Your task to perform on an android device: delete browsing data in the chrome app Image 0: 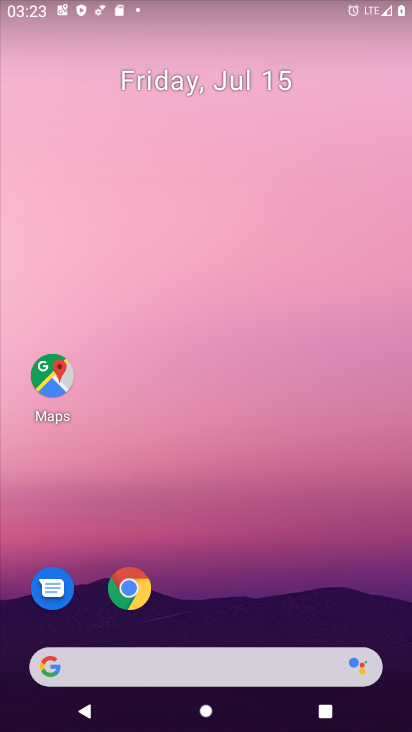
Step 0: click (130, 585)
Your task to perform on an android device: delete browsing data in the chrome app Image 1: 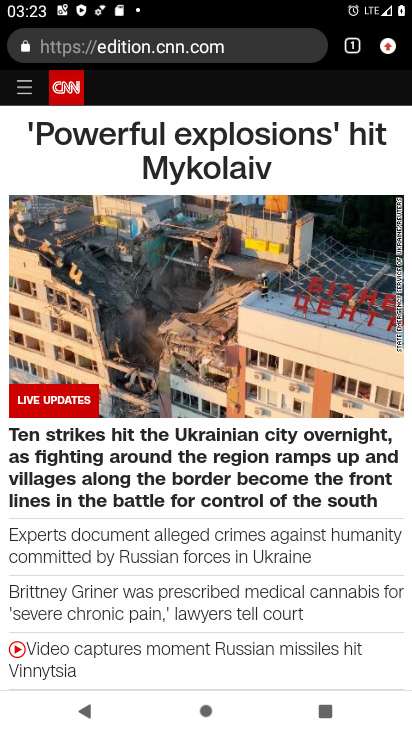
Step 1: click (388, 48)
Your task to perform on an android device: delete browsing data in the chrome app Image 2: 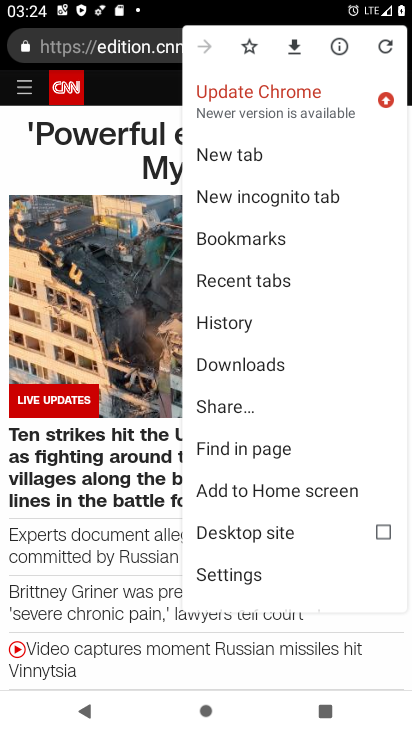
Step 2: click (245, 572)
Your task to perform on an android device: delete browsing data in the chrome app Image 3: 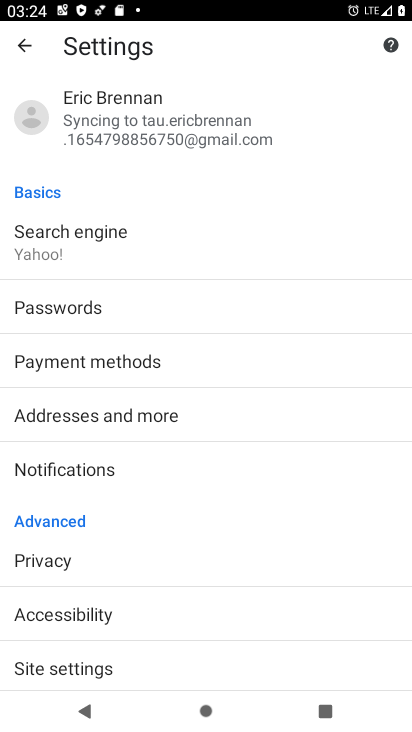
Step 3: click (63, 563)
Your task to perform on an android device: delete browsing data in the chrome app Image 4: 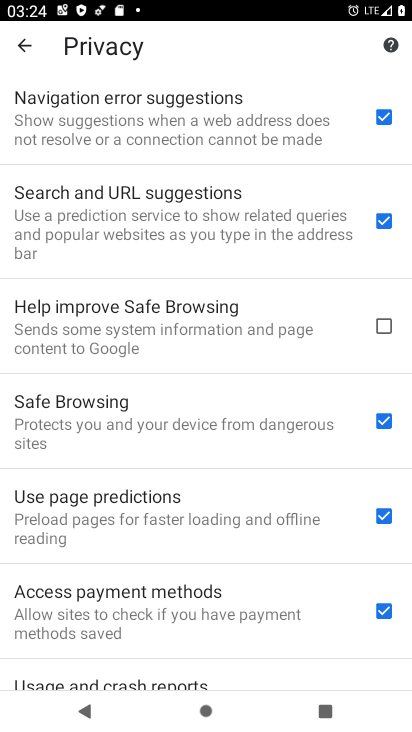
Step 4: drag from (105, 647) to (105, 464)
Your task to perform on an android device: delete browsing data in the chrome app Image 5: 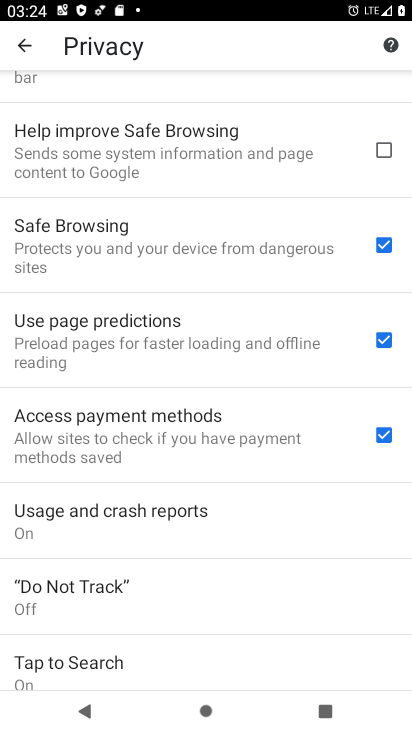
Step 5: drag from (115, 615) to (246, 407)
Your task to perform on an android device: delete browsing data in the chrome app Image 6: 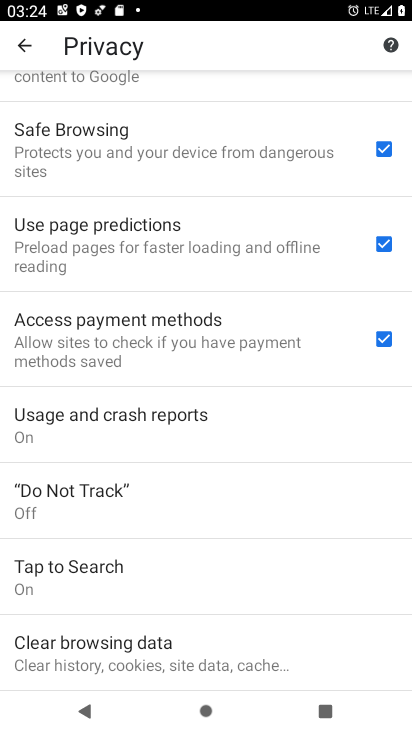
Step 6: click (152, 662)
Your task to perform on an android device: delete browsing data in the chrome app Image 7: 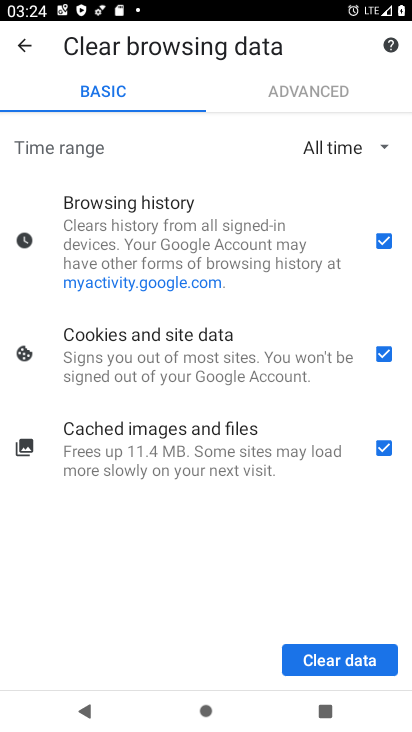
Step 7: click (354, 658)
Your task to perform on an android device: delete browsing data in the chrome app Image 8: 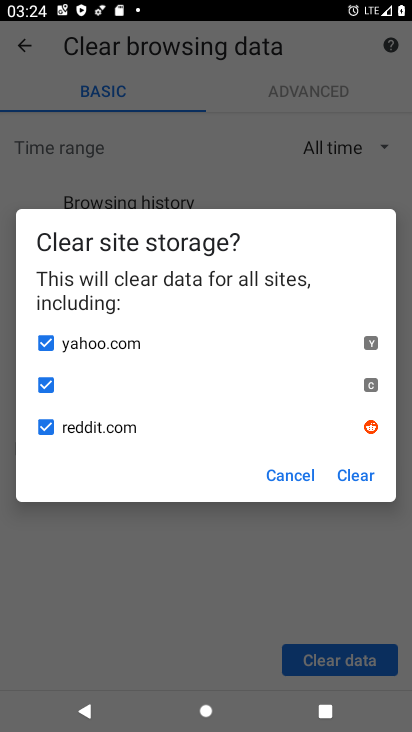
Step 8: click (360, 478)
Your task to perform on an android device: delete browsing data in the chrome app Image 9: 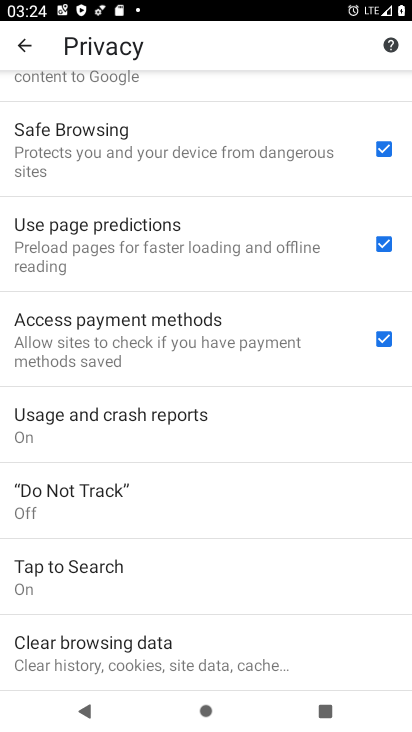
Step 9: task complete